Your task to perform on an android device: Show me popular videos on Youtube Image 0: 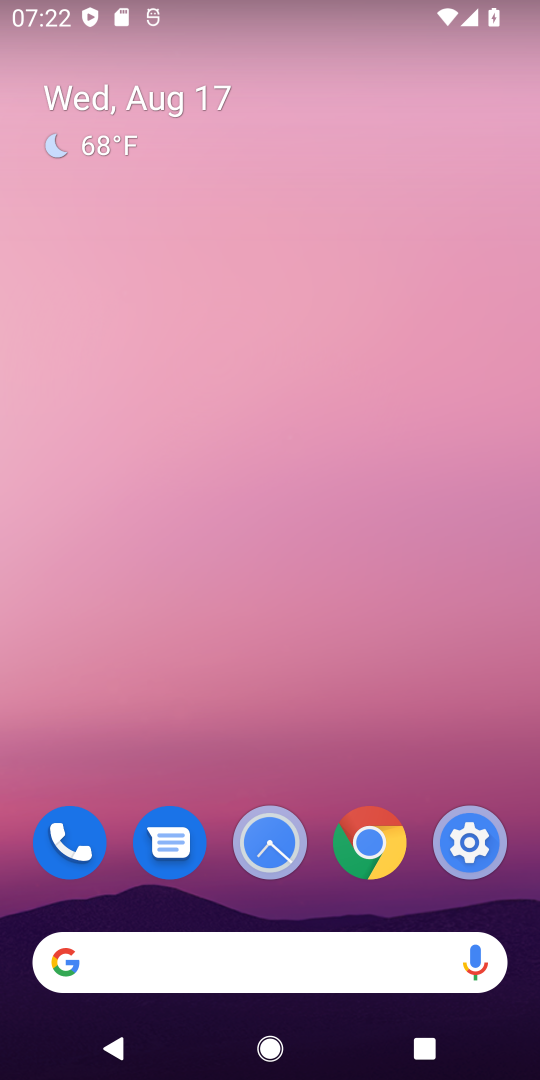
Step 0: drag from (386, 181) to (408, 2)
Your task to perform on an android device: Show me popular videos on Youtube Image 1: 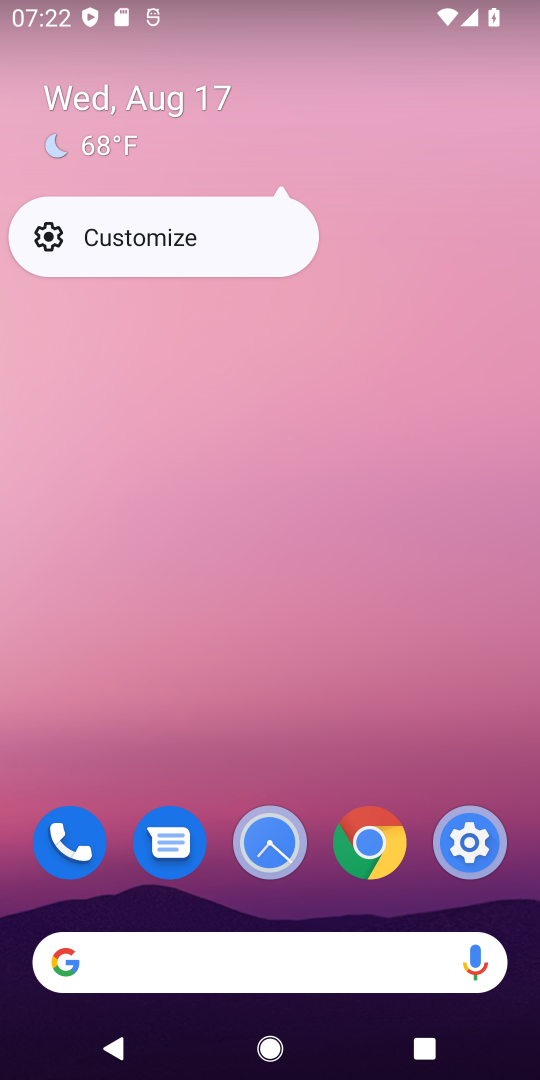
Step 1: click (254, 661)
Your task to perform on an android device: Show me popular videos on Youtube Image 2: 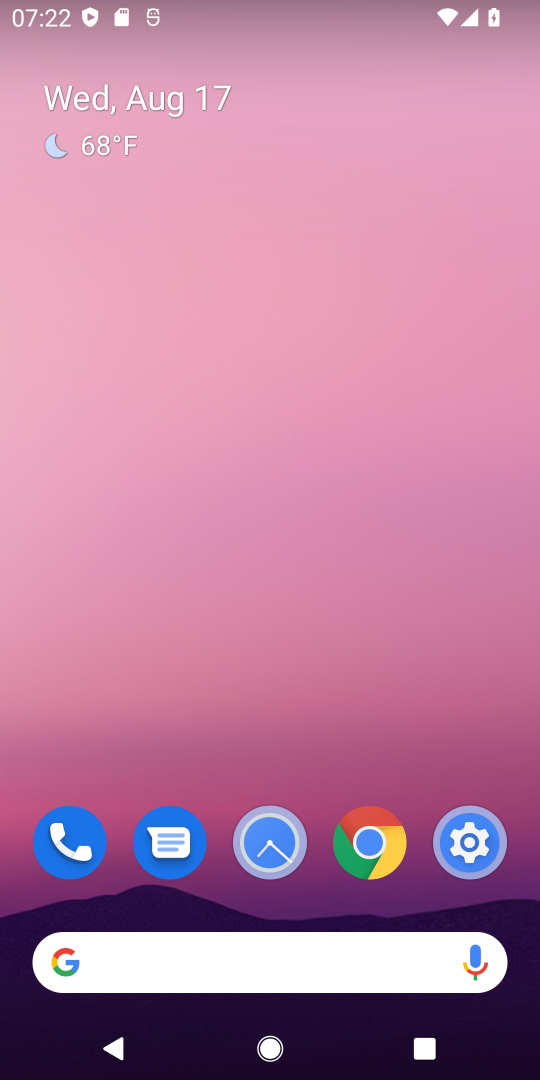
Step 2: drag from (292, 727) to (380, 1)
Your task to perform on an android device: Show me popular videos on Youtube Image 3: 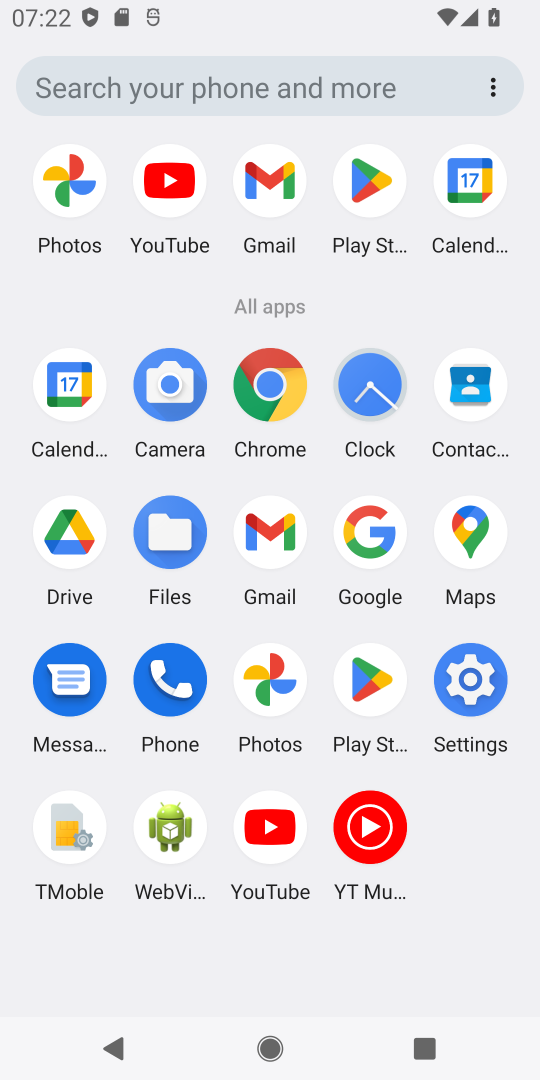
Step 3: click (269, 819)
Your task to perform on an android device: Show me popular videos on Youtube Image 4: 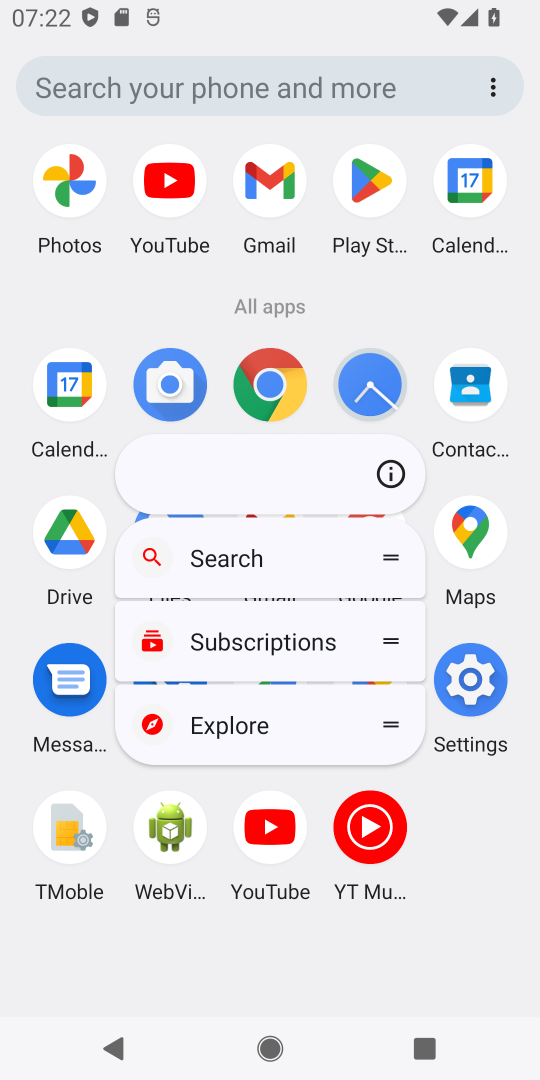
Step 4: click (268, 815)
Your task to perform on an android device: Show me popular videos on Youtube Image 5: 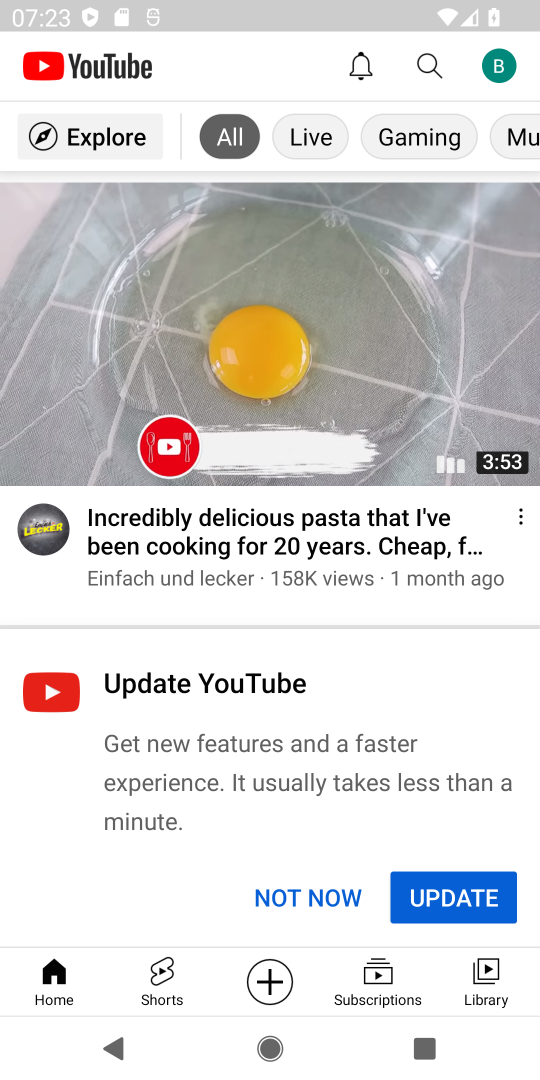
Step 5: click (426, 58)
Your task to perform on an android device: Show me popular videos on Youtube Image 6: 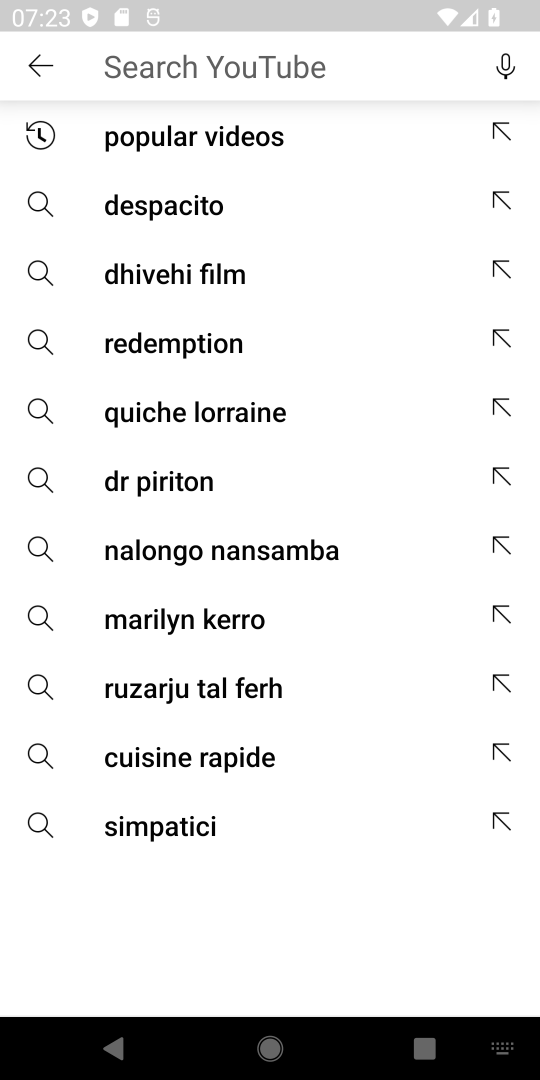
Step 6: click (254, 136)
Your task to perform on an android device: Show me popular videos on Youtube Image 7: 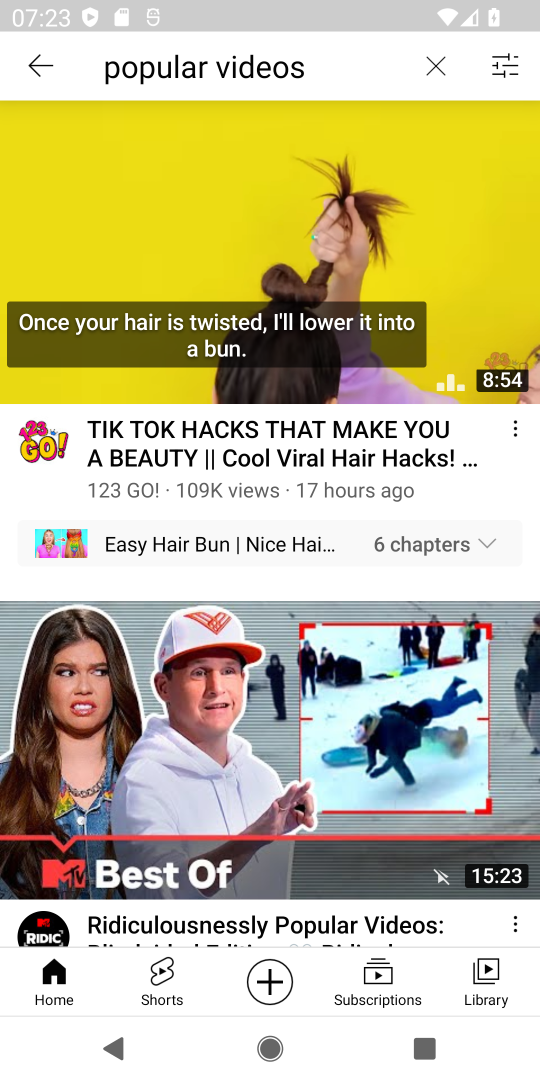
Step 7: task complete